Your task to perform on an android device: turn on notifications settings in the gmail app Image 0: 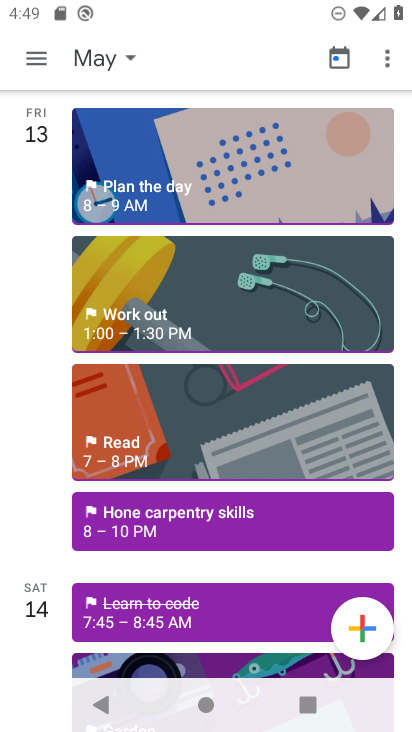
Step 0: press home button
Your task to perform on an android device: turn on notifications settings in the gmail app Image 1: 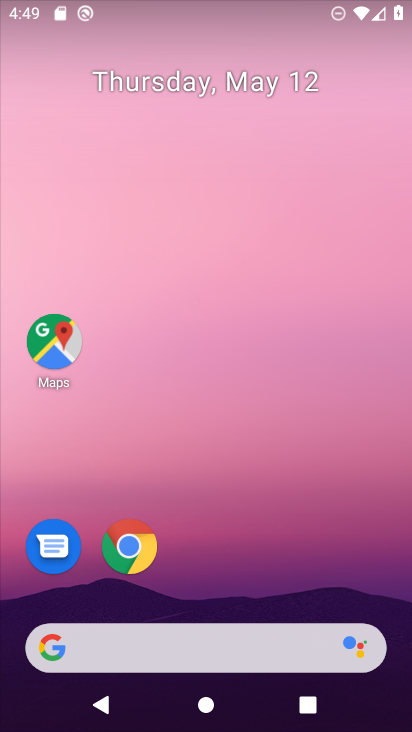
Step 1: drag from (248, 492) to (271, 277)
Your task to perform on an android device: turn on notifications settings in the gmail app Image 2: 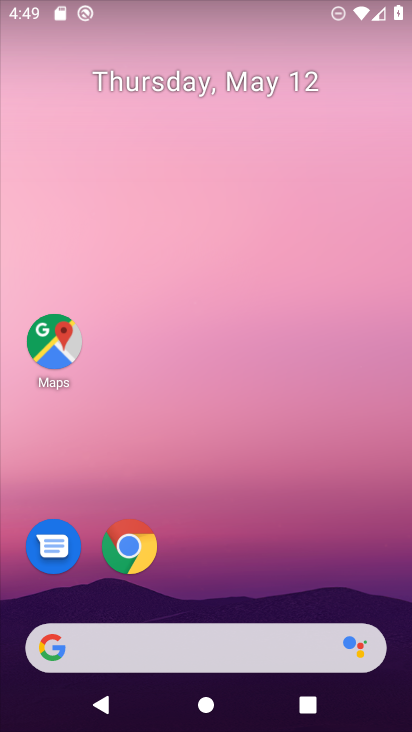
Step 2: drag from (268, 614) to (308, 242)
Your task to perform on an android device: turn on notifications settings in the gmail app Image 3: 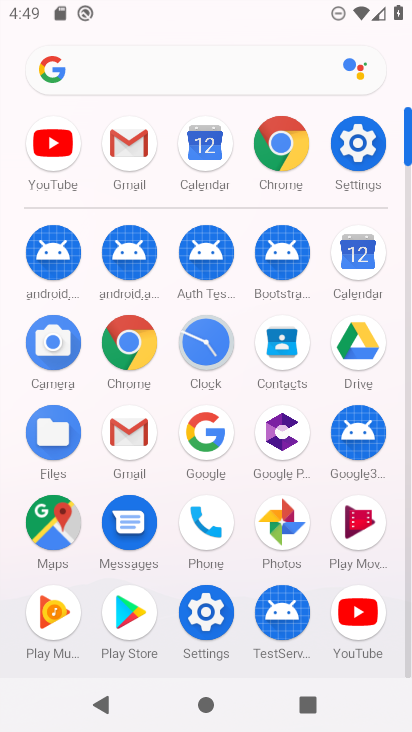
Step 3: click (116, 442)
Your task to perform on an android device: turn on notifications settings in the gmail app Image 4: 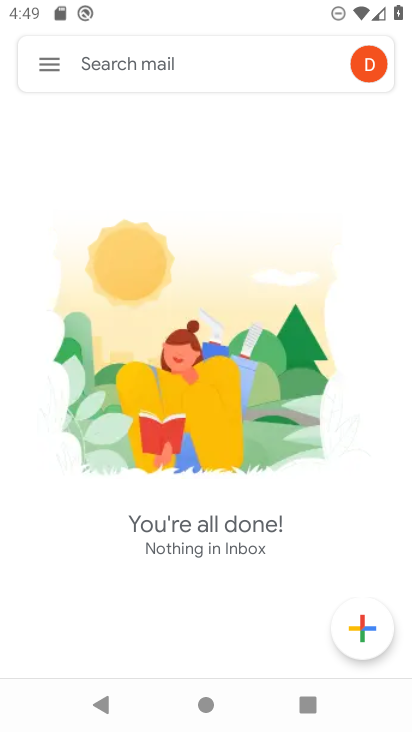
Step 4: click (53, 57)
Your task to perform on an android device: turn on notifications settings in the gmail app Image 5: 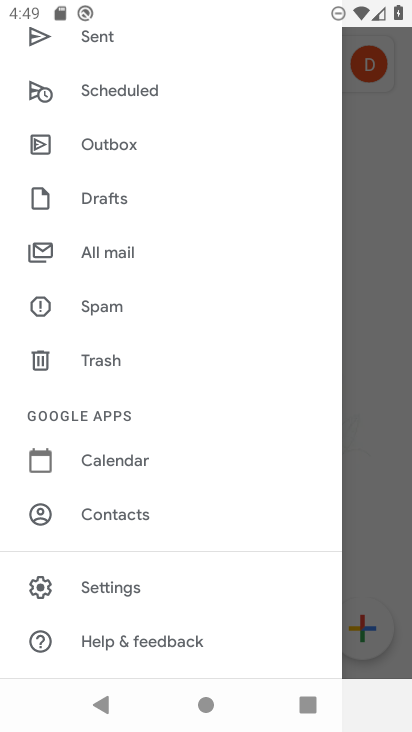
Step 5: click (113, 592)
Your task to perform on an android device: turn on notifications settings in the gmail app Image 6: 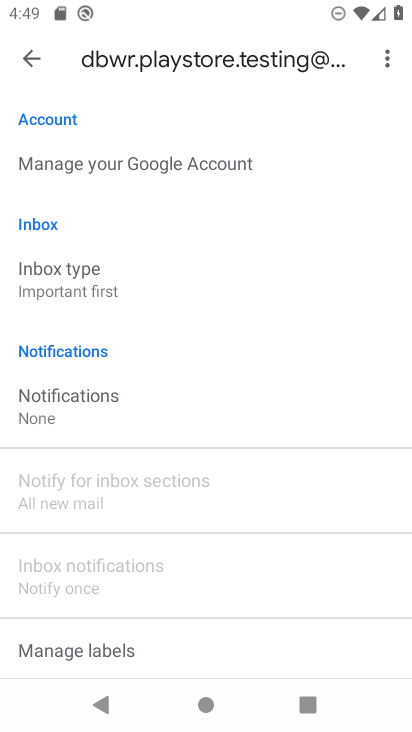
Step 6: click (78, 399)
Your task to perform on an android device: turn on notifications settings in the gmail app Image 7: 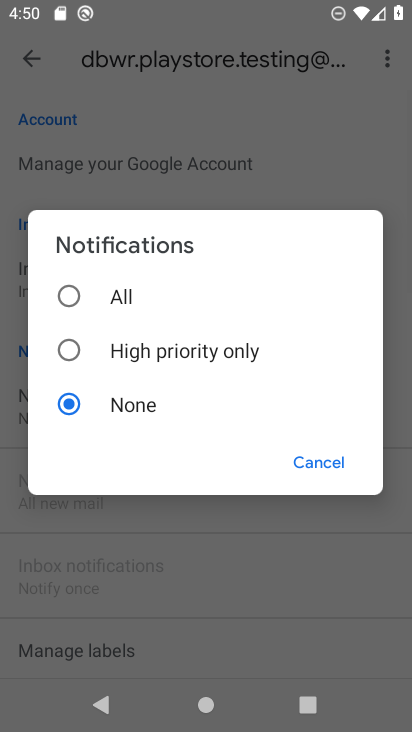
Step 7: click (127, 296)
Your task to perform on an android device: turn on notifications settings in the gmail app Image 8: 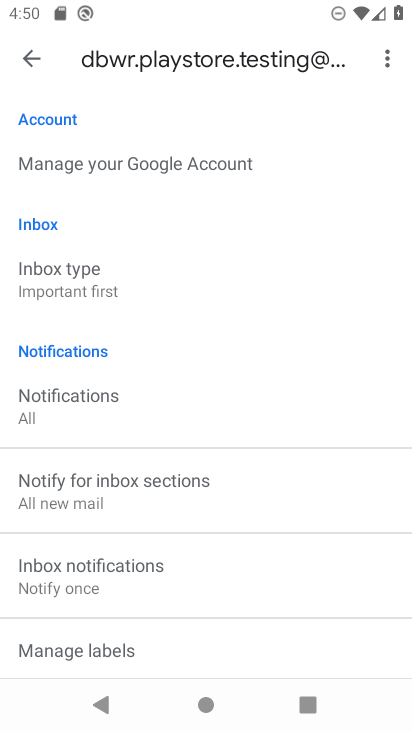
Step 8: task complete